Your task to perform on an android device: Open battery settings Image 0: 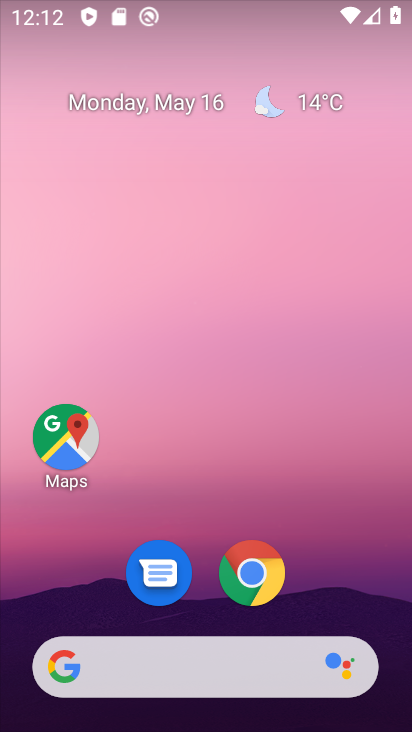
Step 0: drag from (97, 644) to (261, 0)
Your task to perform on an android device: Open battery settings Image 1: 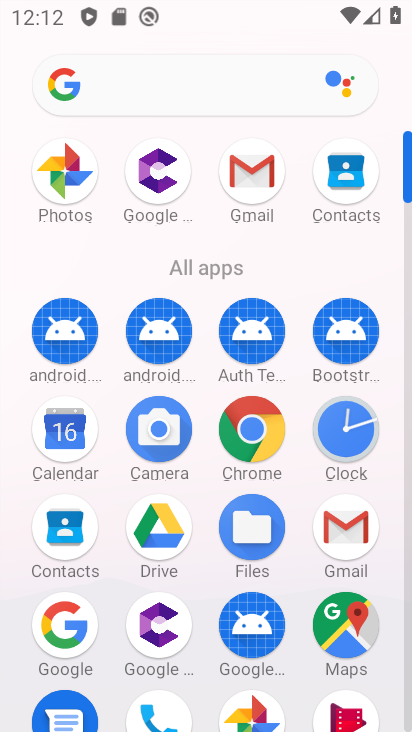
Step 1: drag from (234, 541) to (309, 236)
Your task to perform on an android device: Open battery settings Image 2: 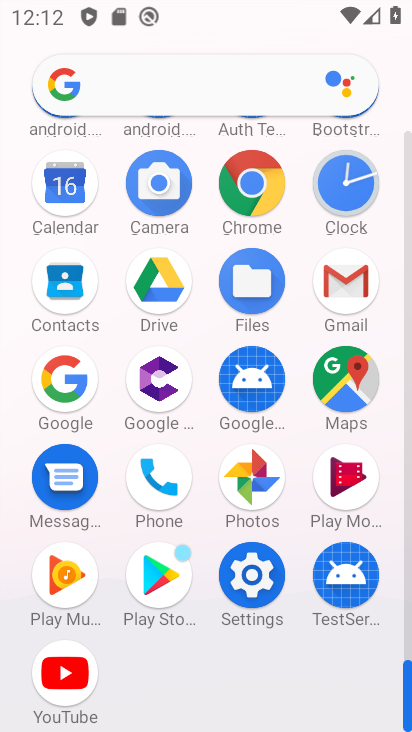
Step 2: click (237, 572)
Your task to perform on an android device: Open battery settings Image 3: 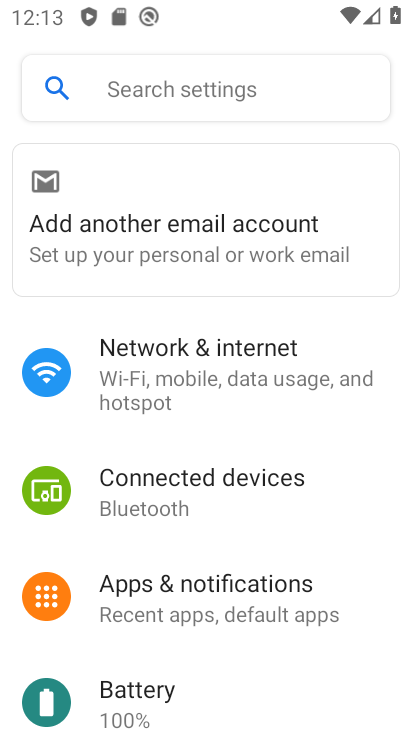
Step 3: drag from (187, 633) to (270, 298)
Your task to perform on an android device: Open battery settings Image 4: 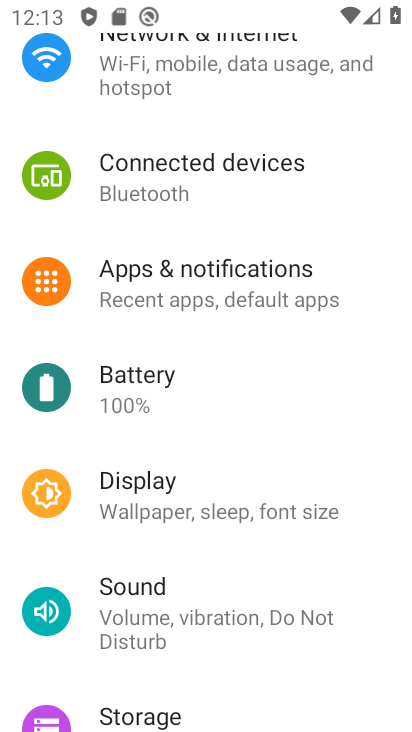
Step 4: click (205, 389)
Your task to perform on an android device: Open battery settings Image 5: 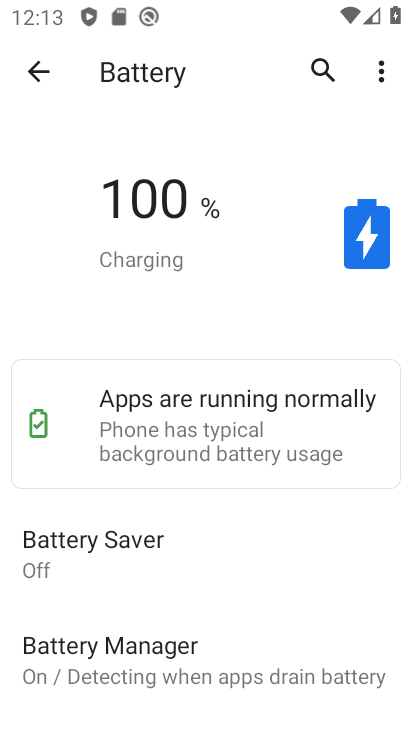
Step 5: task complete